Your task to perform on an android device: check battery use Image 0: 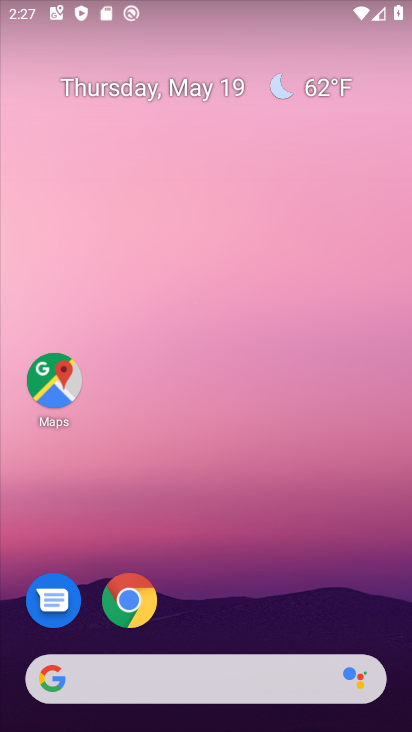
Step 0: drag from (27, 628) to (333, 134)
Your task to perform on an android device: check battery use Image 1: 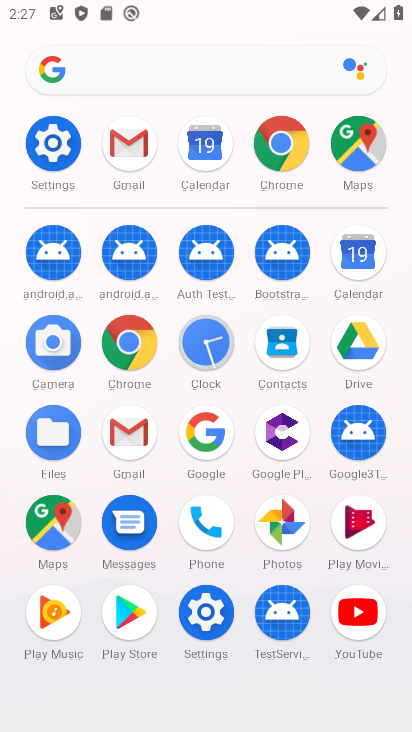
Step 1: click (58, 148)
Your task to perform on an android device: check battery use Image 2: 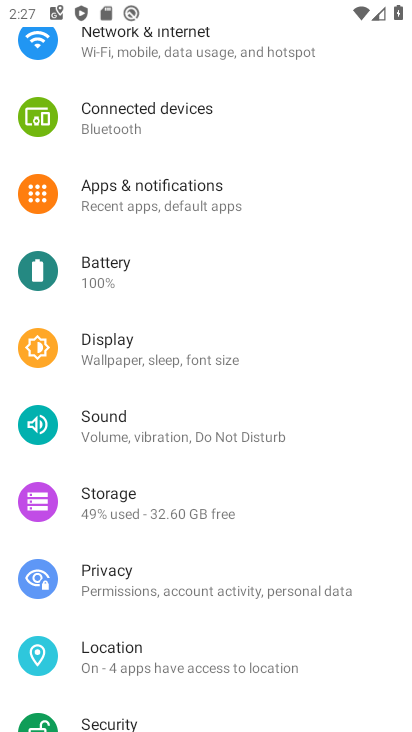
Step 2: click (165, 267)
Your task to perform on an android device: check battery use Image 3: 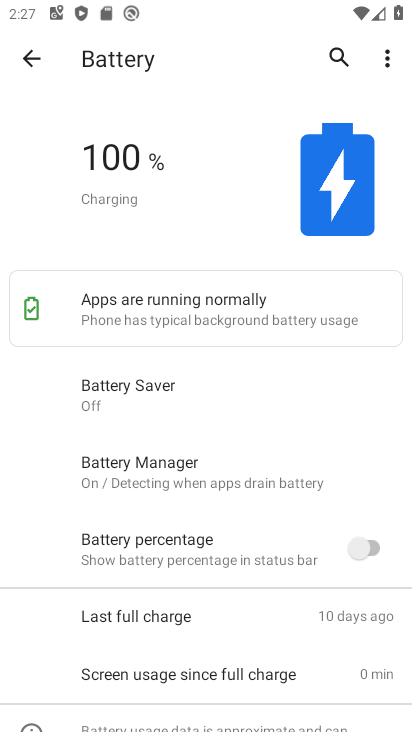
Step 3: task complete